Your task to perform on an android device: Open accessibility settings Image 0: 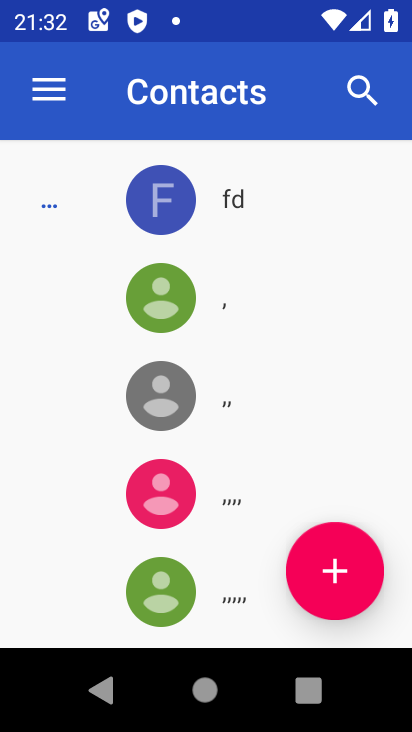
Step 0: press home button
Your task to perform on an android device: Open accessibility settings Image 1: 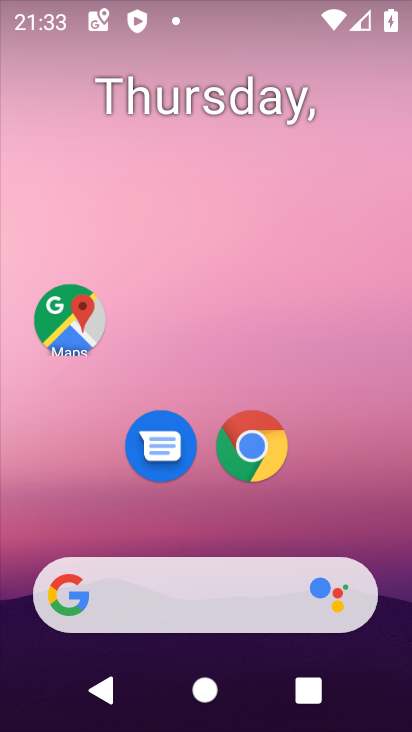
Step 1: drag from (322, 479) to (228, 67)
Your task to perform on an android device: Open accessibility settings Image 2: 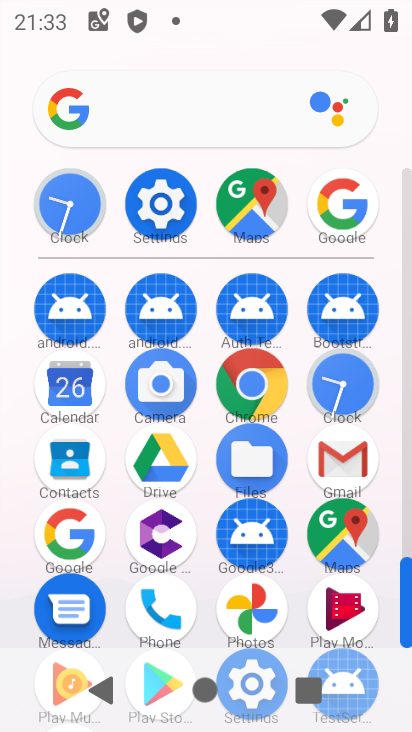
Step 2: drag from (406, 594) to (397, 730)
Your task to perform on an android device: Open accessibility settings Image 3: 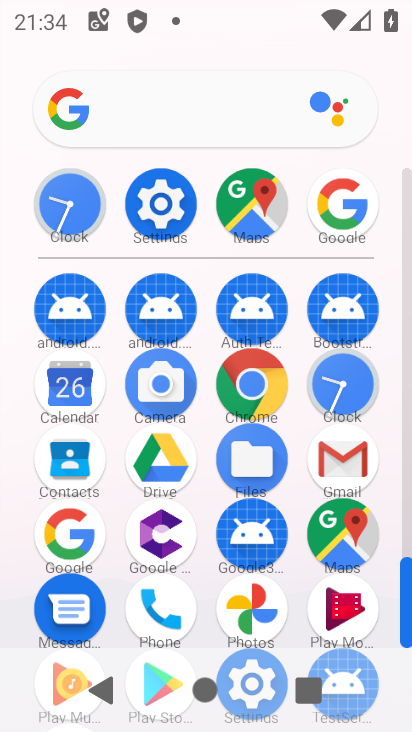
Step 3: drag from (405, 625) to (364, 726)
Your task to perform on an android device: Open accessibility settings Image 4: 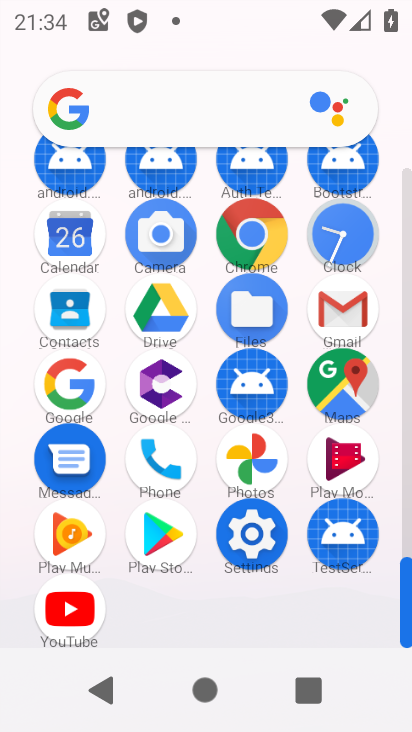
Step 4: click (255, 534)
Your task to perform on an android device: Open accessibility settings Image 5: 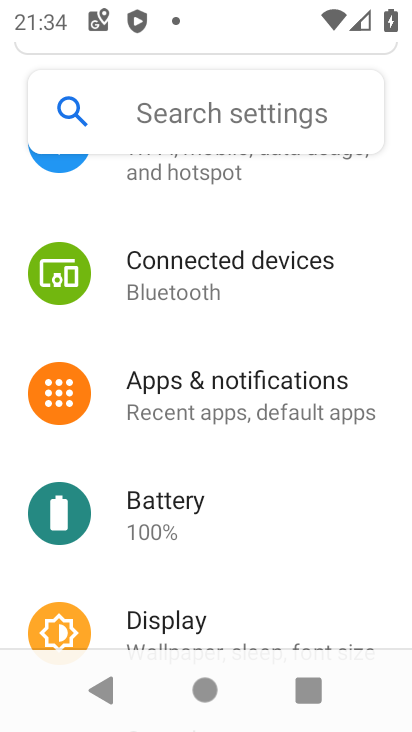
Step 5: drag from (252, 561) to (264, 73)
Your task to perform on an android device: Open accessibility settings Image 6: 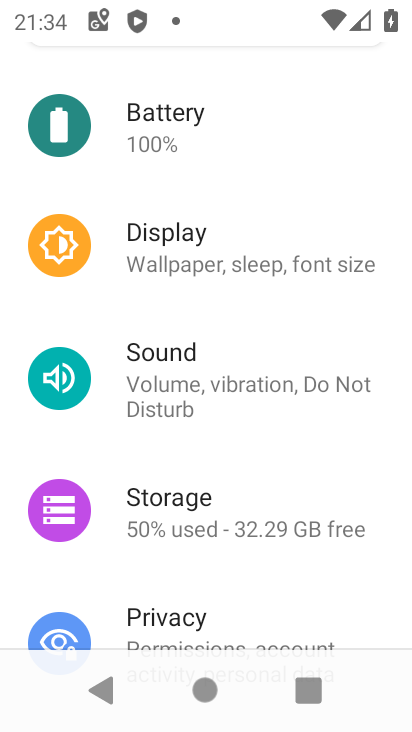
Step 6: drag from (183, 421) to (212, 1)
Your task to perform on an android device: Open accessibility settings Image 7: 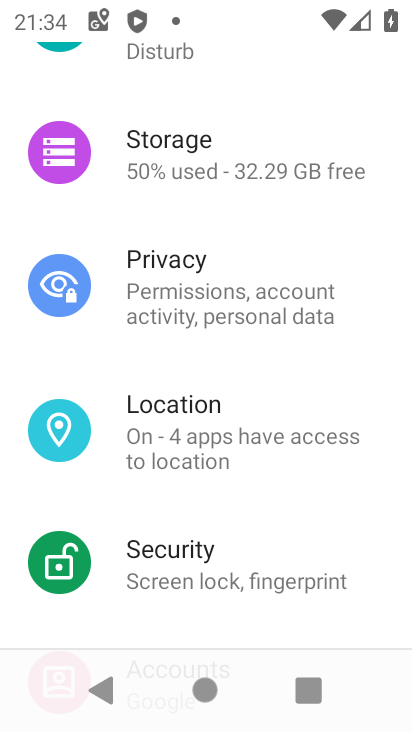
Step 7: drag from (272, 585) to (307, 72)
Your task to perform on an android device: Open accessibility settings Image 8: 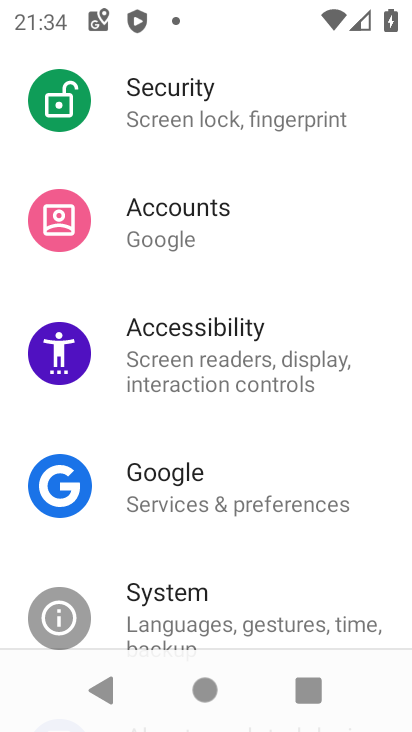
Step 8: drag from (167, 618) to (244, 139)
Your task to perform on an android device: Open accessibility settings Image 9: 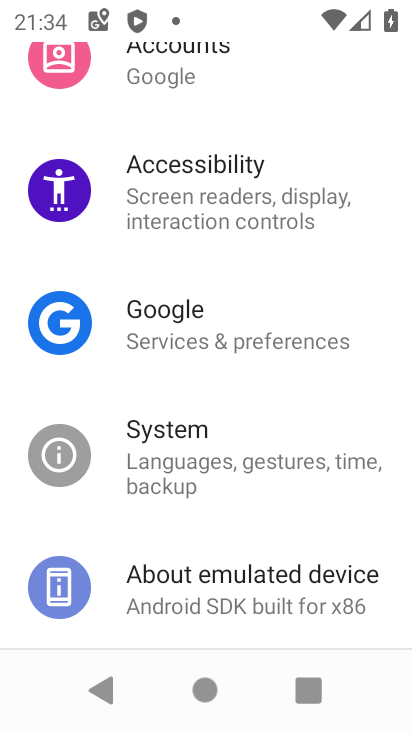
Step 9: drag from (367, 525) to (400, 14)
Your task to perform on an android device: Open accessibility settings Image 10: 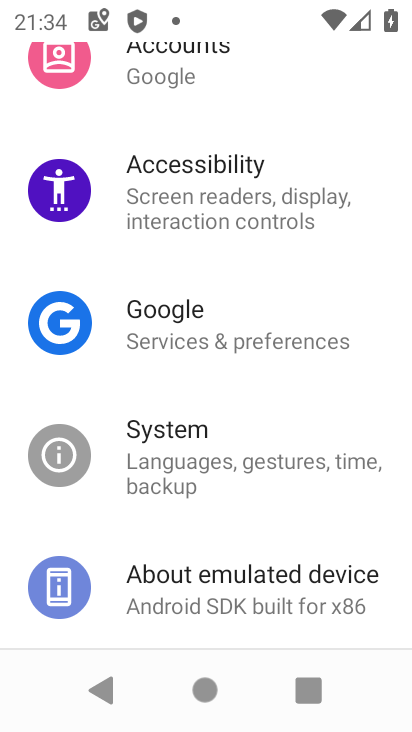
Step 10: click (279, 205)
Your task to perform on an android device: Open accessibility settings Image 11: 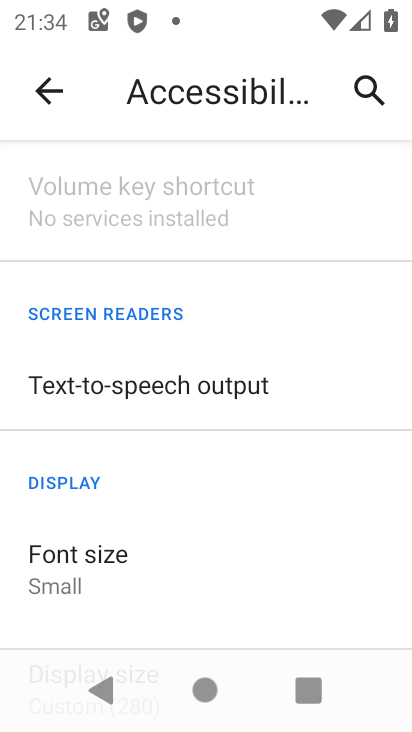
Step 11: task complete